Your task to perform on an android device: Open sound settings Image 0: 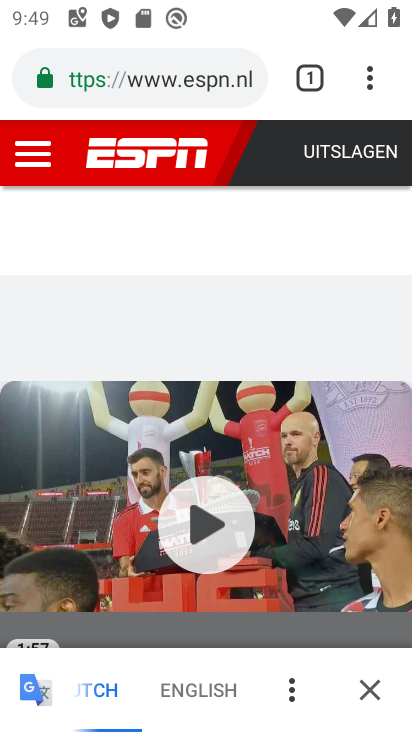
Step 0: press home button
Your task to perform on an android device: Open sound settings Image 1: 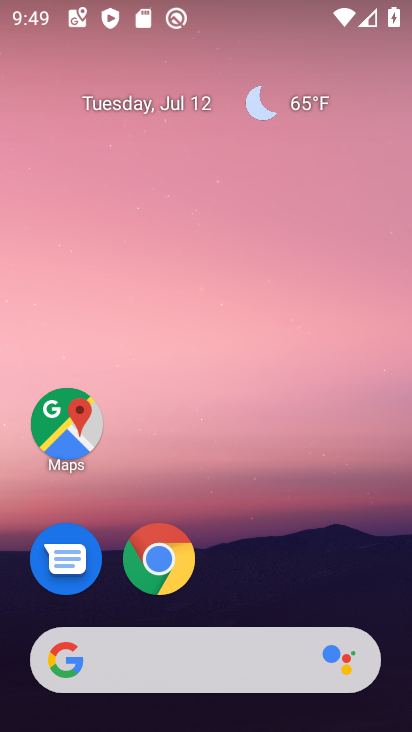
Step 1: drag from (334, 567) to (310, 32)
Your task to perform on an android device: Open sound settings Image 2: 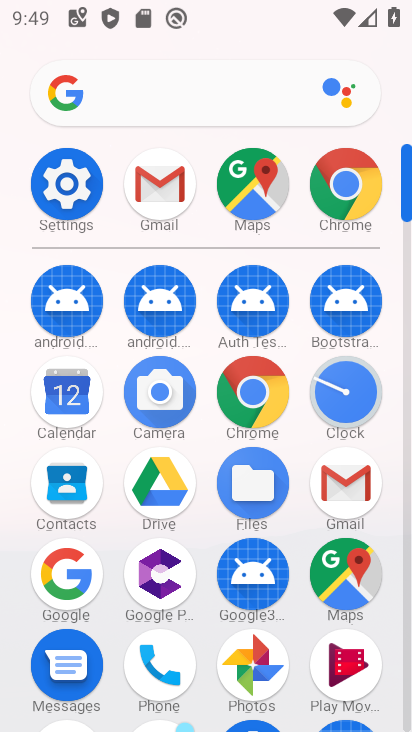
Step 2: click (77, 210)
Your task to perform on an android device: Open sound settings Image 3: 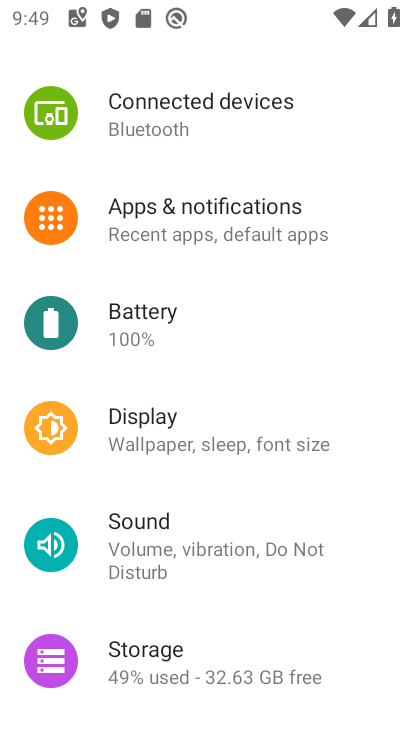
Step 3: drag from (356, 241) to (350, 362)
Your task to perform on an android device: Open sound settings Image 4: 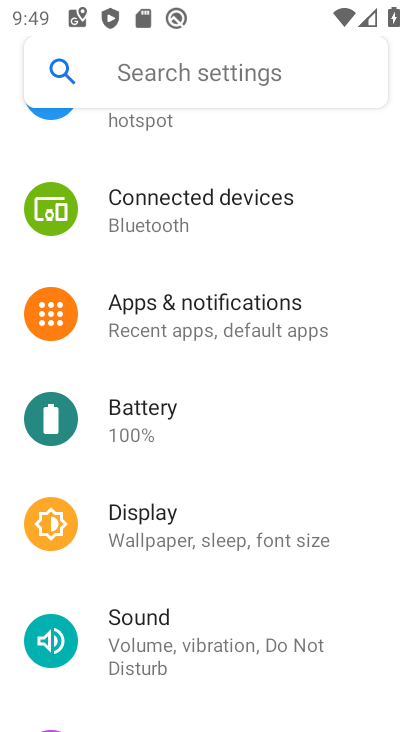
Step 4: drag from (352, 213) to (354, 367)
Your task to perform on an android device: Open sound settings Image 5: 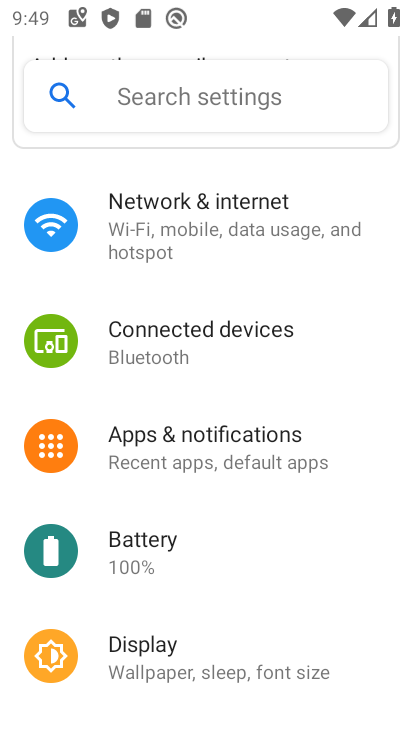
Step 5: drag from (363, 178) to (352, 487)
Your task to perform on an android device: Open sound settings Image 6: 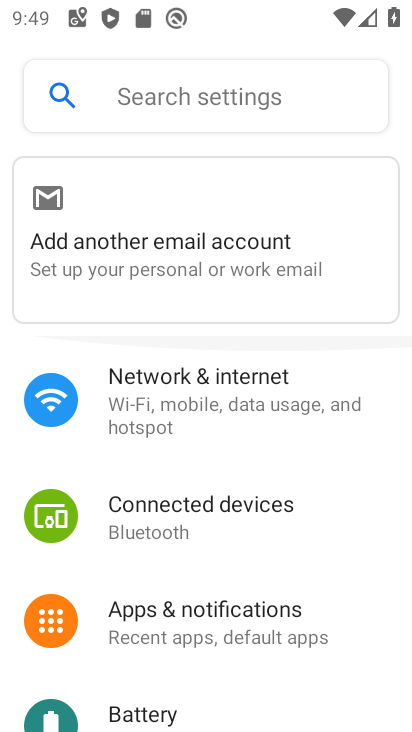
Step 6: drag from (345, 513) to (351, 378)
Your task to perform on an android device: Open sound settings Image 7: 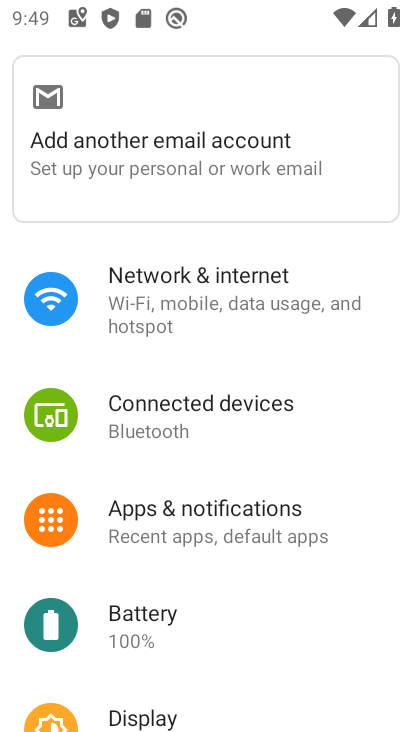
Step 7: drag from (346, 507) to (343, 406)
Your task to perform on an android device: Open sound settings Image 8: 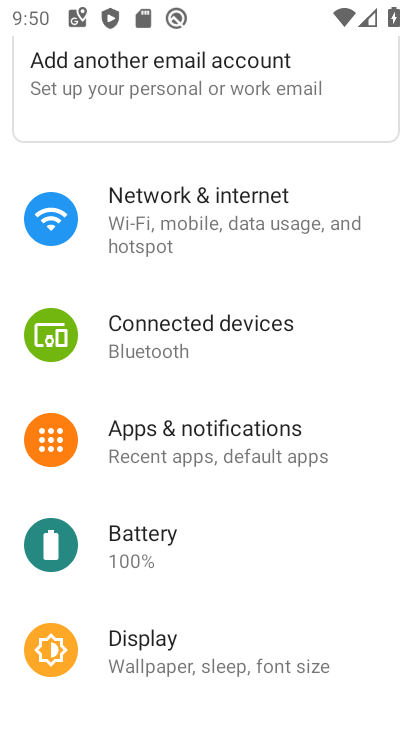
Step 8: drag from (341, 530) to (347, 422)
Your task to perform on an android device: Open sound settings Image 9: 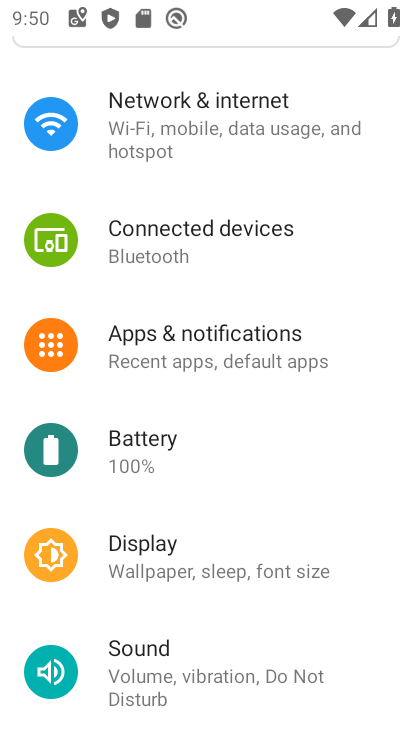
Step 9: drag from (336, 506) to (347, 309)
Your task to perform on an android device: Open sound settings Image 10: 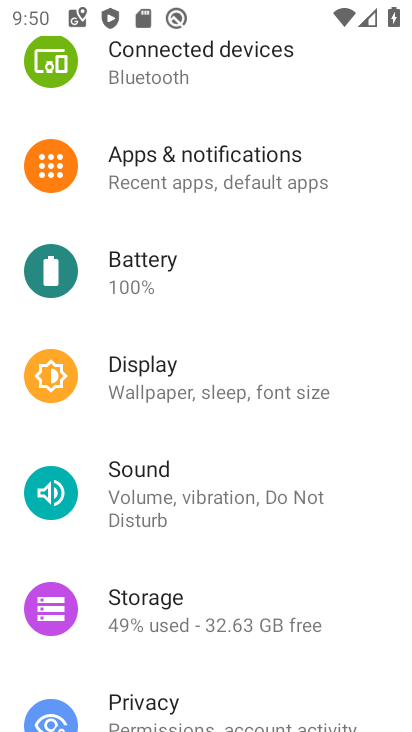
Step 10: drag from (359, 476) to (360, 368)
Your task to perform on an android device: Open sound settings Image 11: 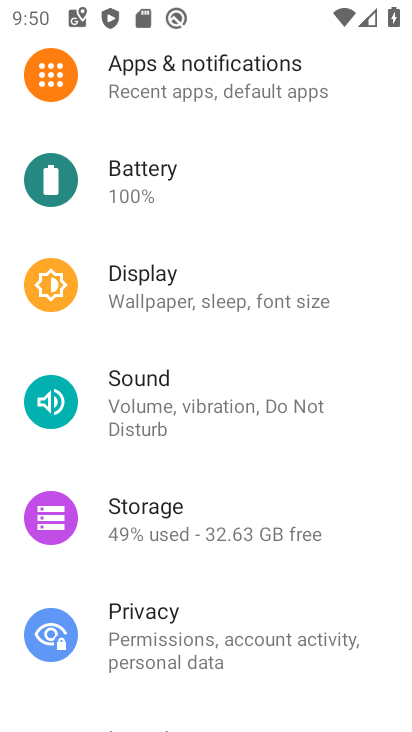
Step 11: drag from (345, 516) to (349, 401)
Your task to perform on an android device: Open sound settings Image 12: 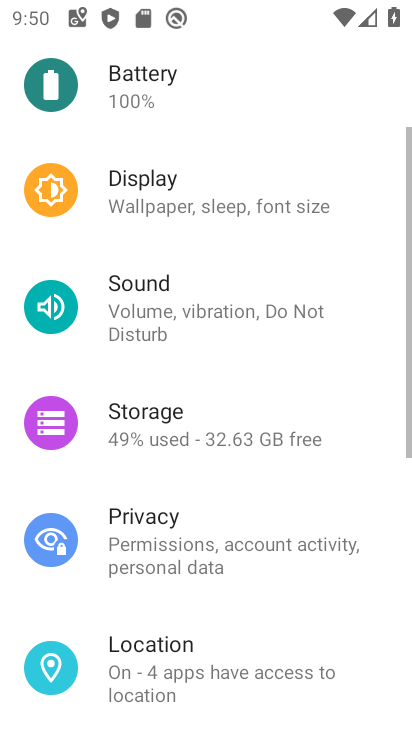
Step 12: drag from (357, 470) to (359, 338)
Your task to perform on an android device: Open sound settings Image 13: 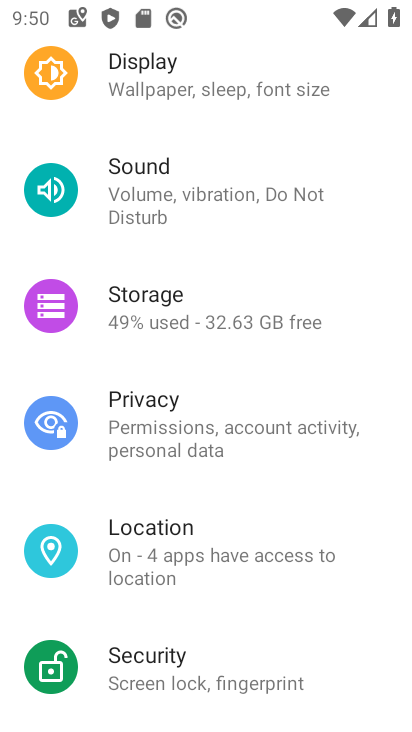
Step 13: drag from (350, 236) to (368, 398)
Your task to perform on an android device: Open sound settings Image 14: 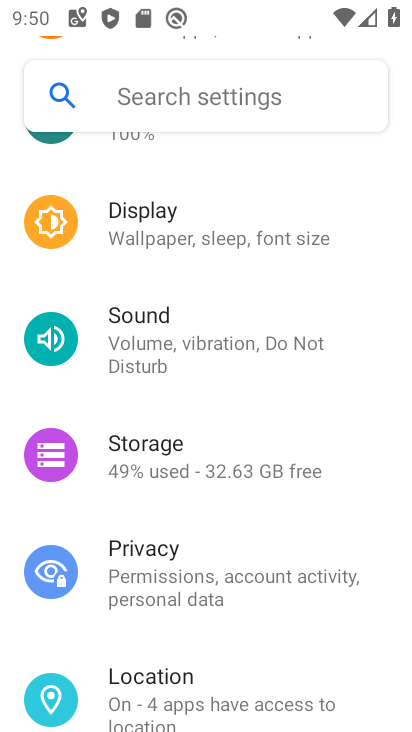
Step 14: drag from (362, 256) to (364, 396)
Your task to perform on an android device: Open sound settings Image 15: 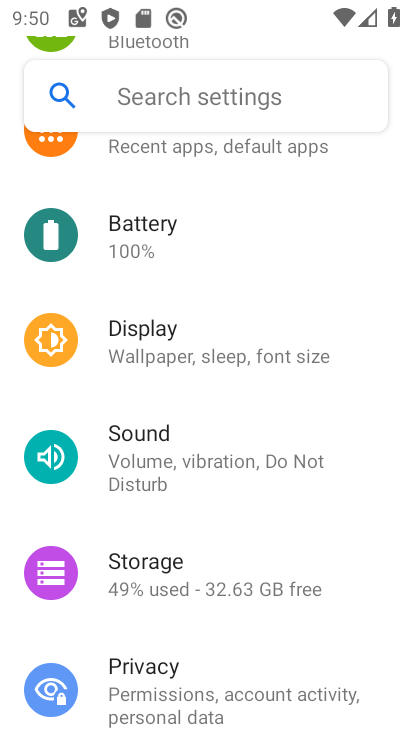
Step 15: click (308, 452)
Your task to perform on an android device: Open sound settings Image 16: 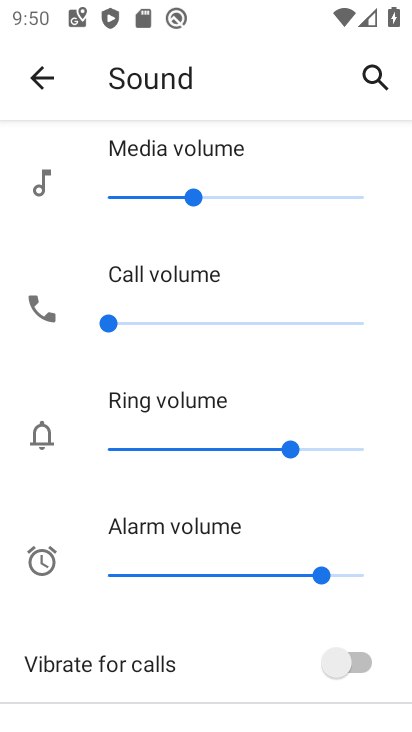
Step 16: task complete